Your task to perform on an android device: check battery use Image 0: 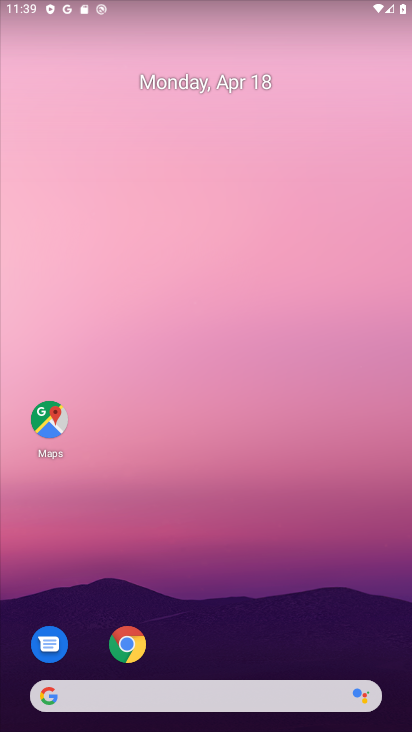
Step 0: drag from (267, 429) to (274, 129)
Your task to perform on an android device: check battery use Image 1: 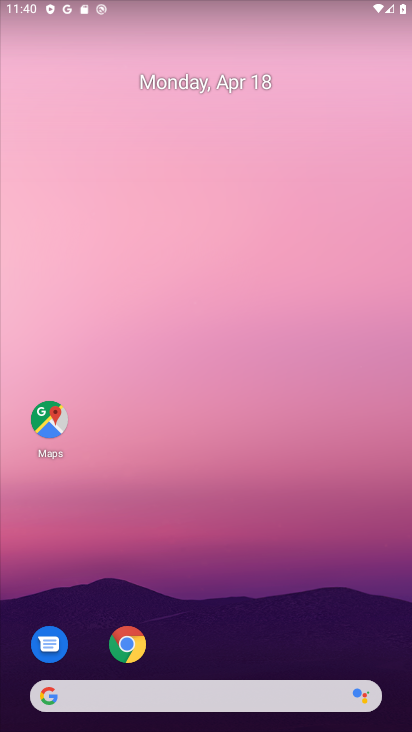
Step 1: drag from (249, 637) to (253, 239)
Your task to perform on an android device: check battery use Image 2: 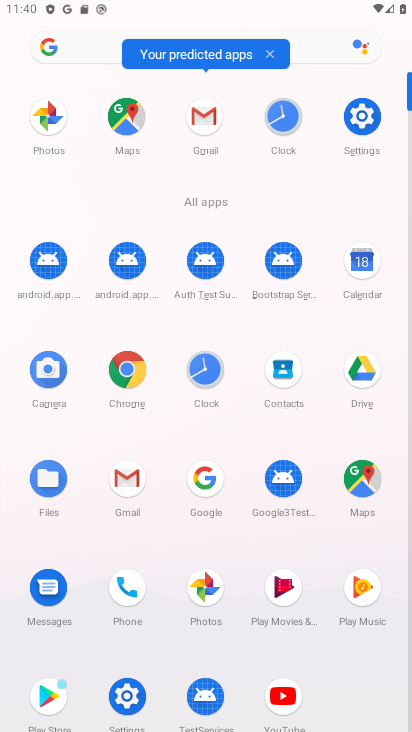
Step 2: click (369, 124)
Your task to perform on an android device: check battery use Image 3: 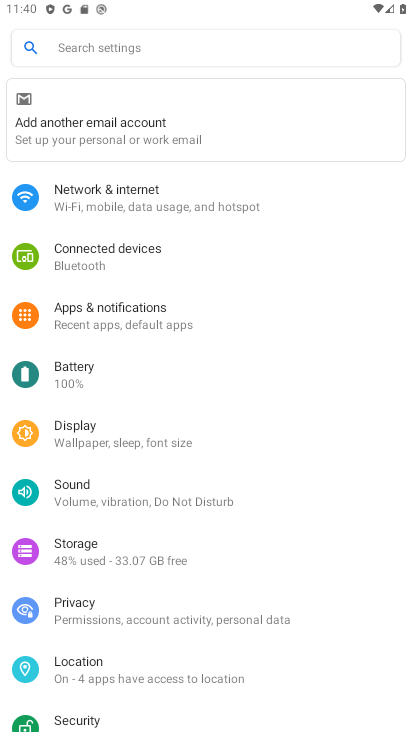
Step 3: click (105, 373)
Your task to perform on an android device: check battery use Image 4: 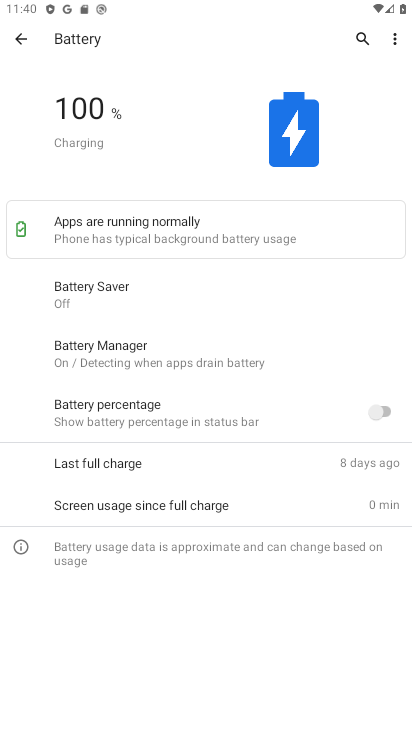
Step 4: task complete